Your task to perform on an android device: change the clock style Image 0: 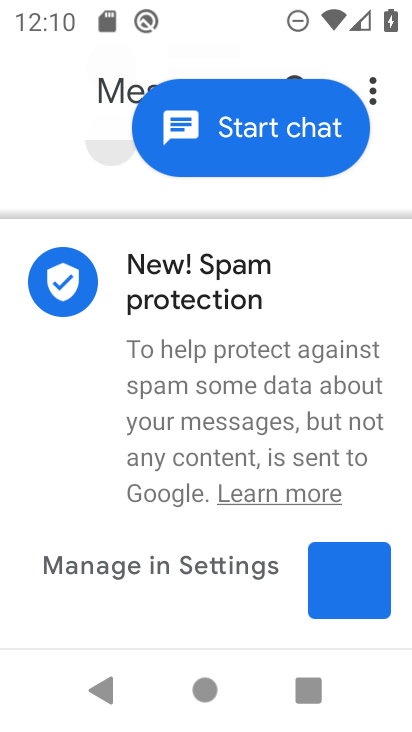
Step 0: press home button
Your task to perform on an android device: change the clock style Image 1: 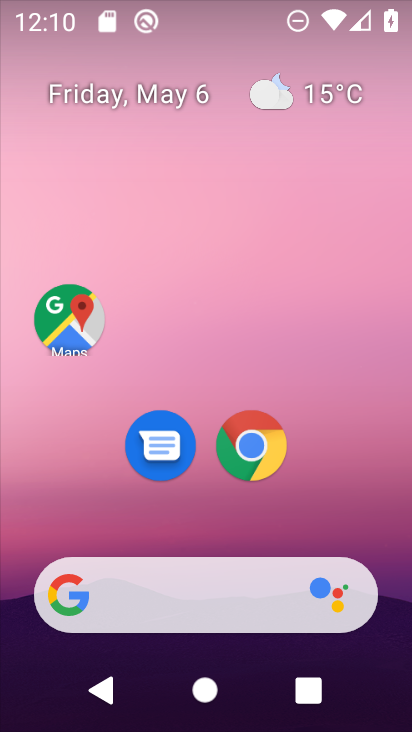
Step 1: drag from (327, 380) to (265, 4)
Your task to perform on an android device: change the clock style Image 2: 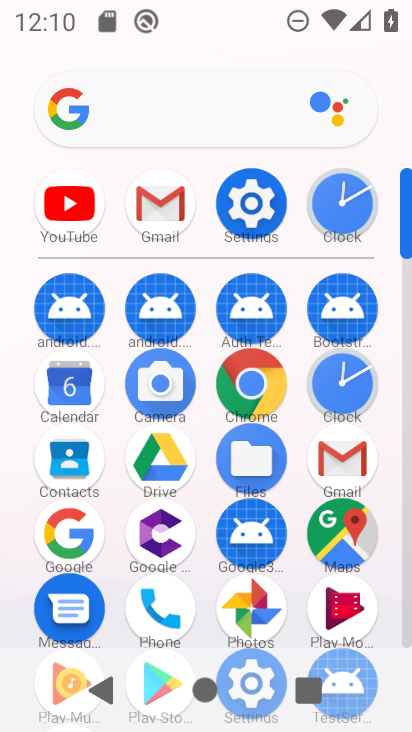
Step 2: click (348, 373)
Your task to perform on an android device: change the clock style Image 3: 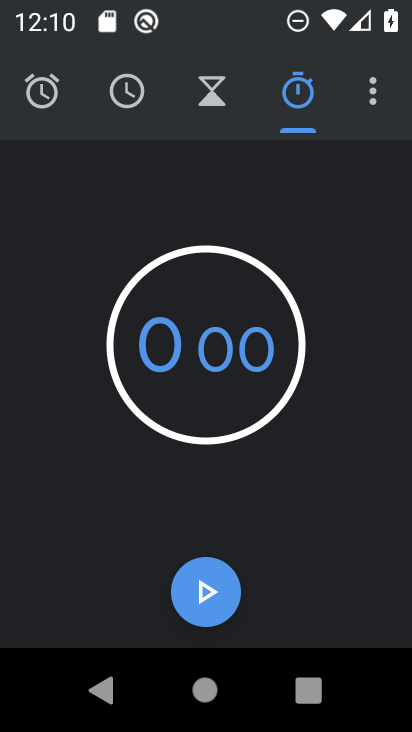
Step 3: click (370, 90)
Your task to perform on an android device: change the clock style Image 4: 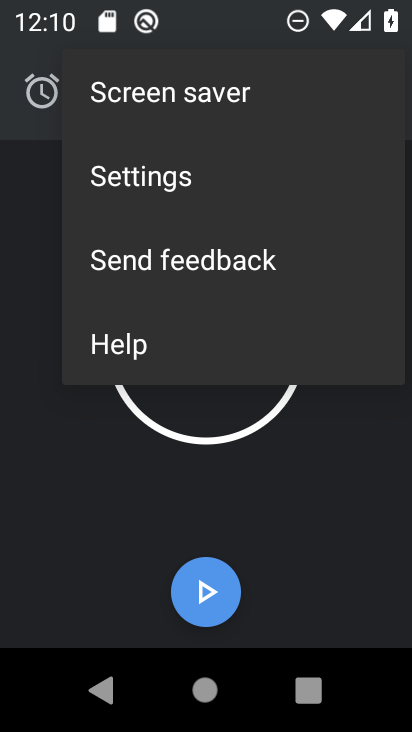
Step 4: click (193, 176)
Your task to perform on an android device: change the clock style Image 5: 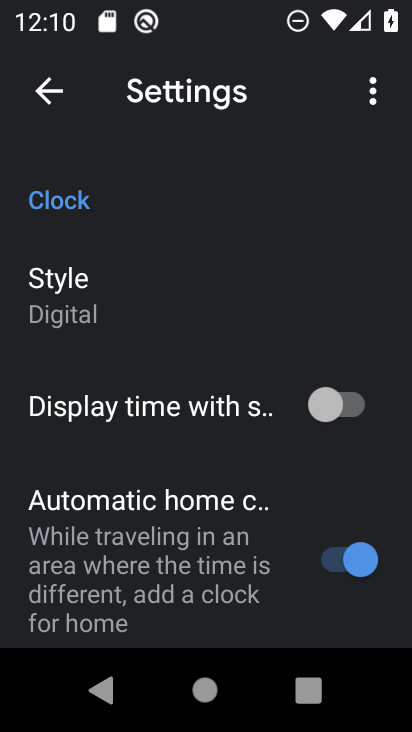
Step 5: click (96, 293)
Your task to perform on an android device: change the clock style Image 6: 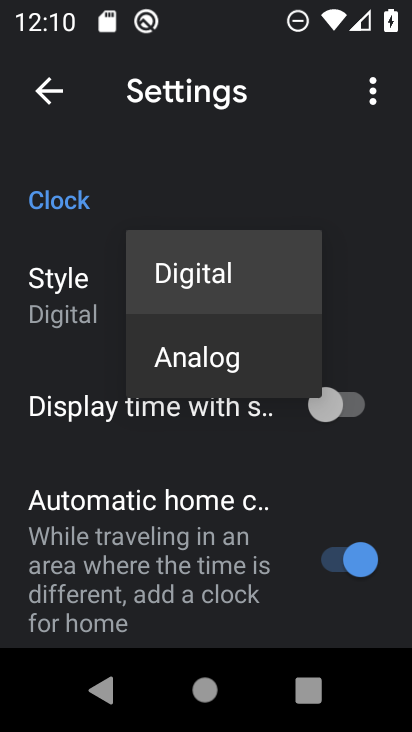
Step 6: click (196, 351)
Your task to perform on an android device: change the clock style Image 7: 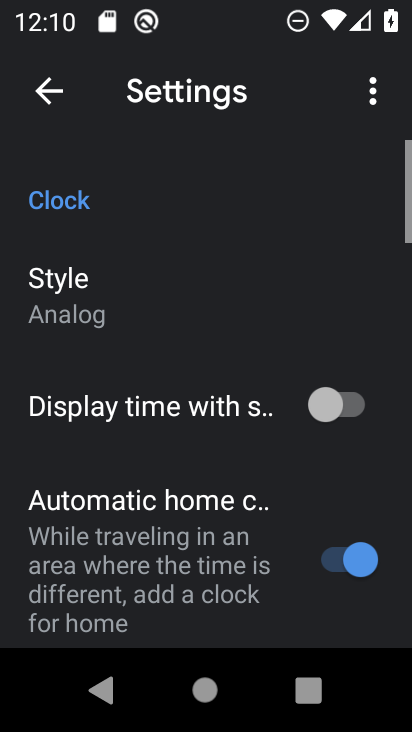
Step 7: task complete